Your task to perform on an android device: turn on priority inbox in the gmail app Image 0: 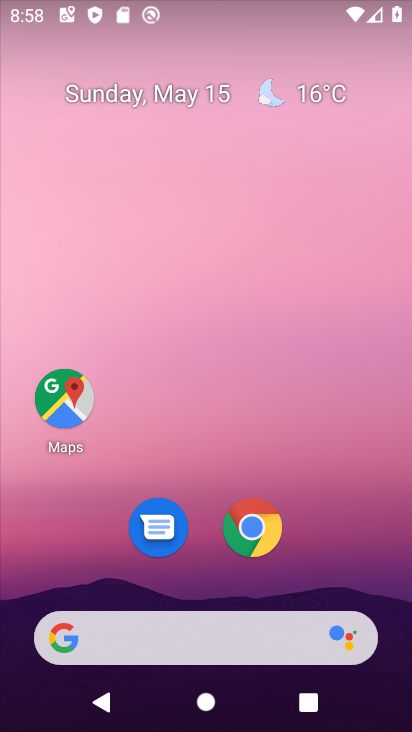
Step 0: drag from (309, 582) to (307, 9)
Your task to perform on an android device: turn on priority inbox in the gmail app Image 1: 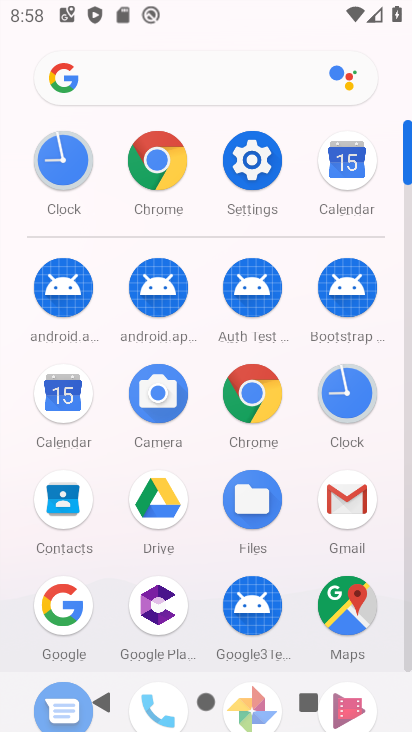
Step 1: click (353, 497)
Your task to perform on an android device: turn on priority inbox in the gmail app Image 2: 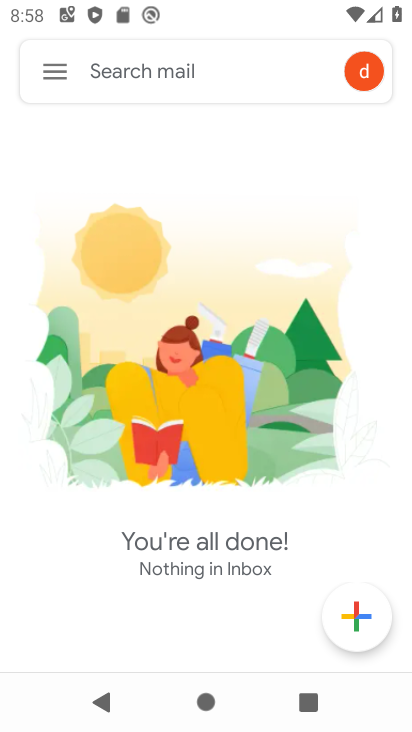
Step 2: click (47, 78)
Your task to perform on an android device: turn on priority inbox in the gmail app Image 3: 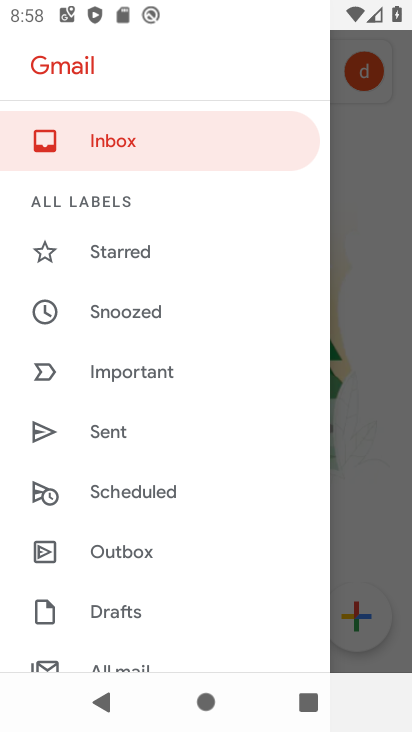
Step 3: drag from (180, 582) to (158, 113)
Your task to perform on an android device: turn on priority inbox in the gmail app Image 4: 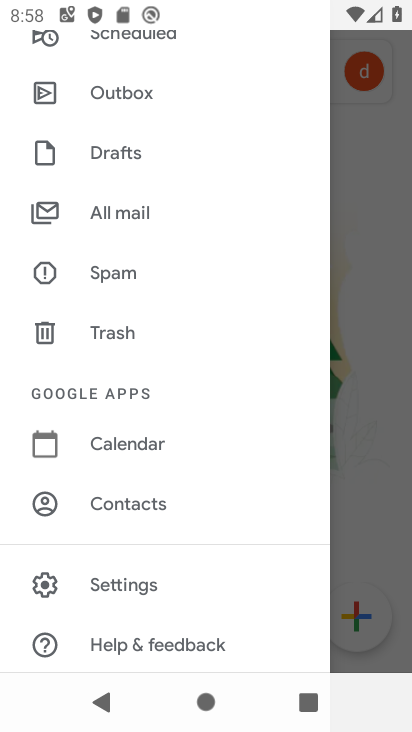
Step 4: click (143, 588)
Your task to perform on an android device: turn on priority inbox in the gmail app Image 5: 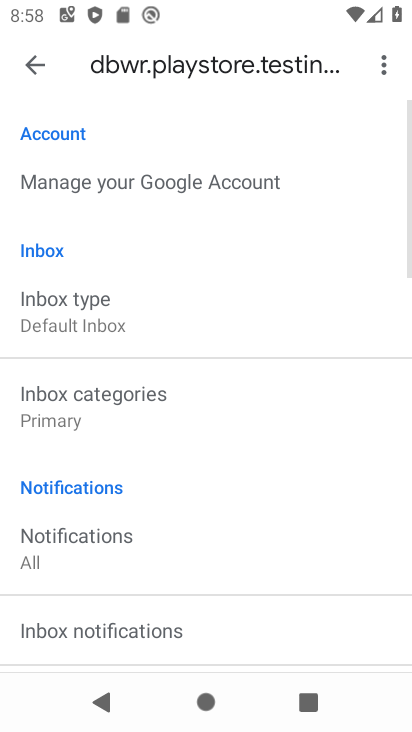
Step 5: click (54, 310)
Your task to perform on an android device: turn on priority inbox in the gmail app Image 6: 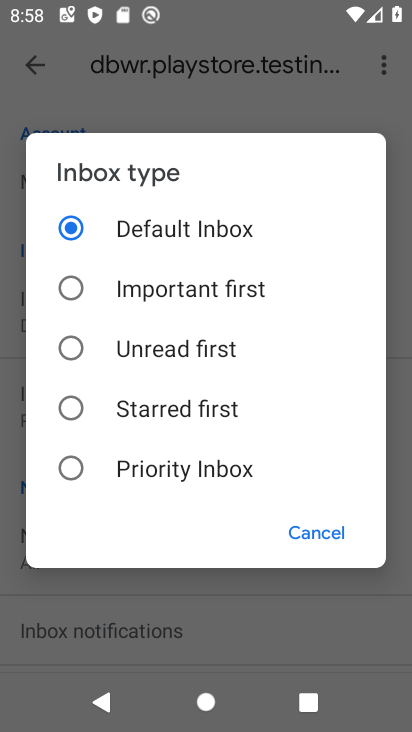
Step 6: click (67, 471)
Your task to perform on an android device: turn on priority inbox in the gmail app Image 7: 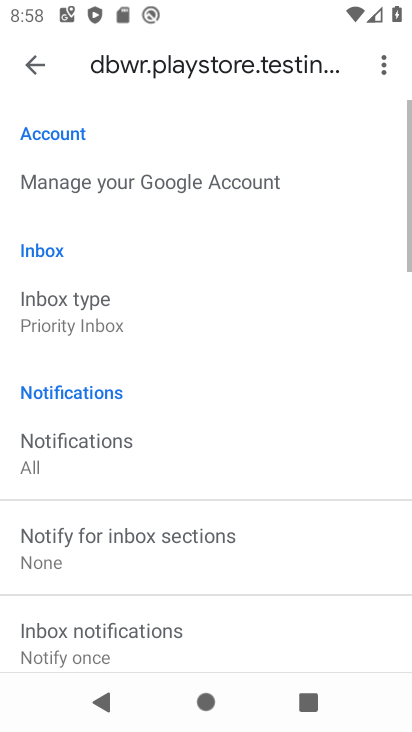
Step 7: task complete